Your task to perform on an android device: Open Wikipedia Image 0: 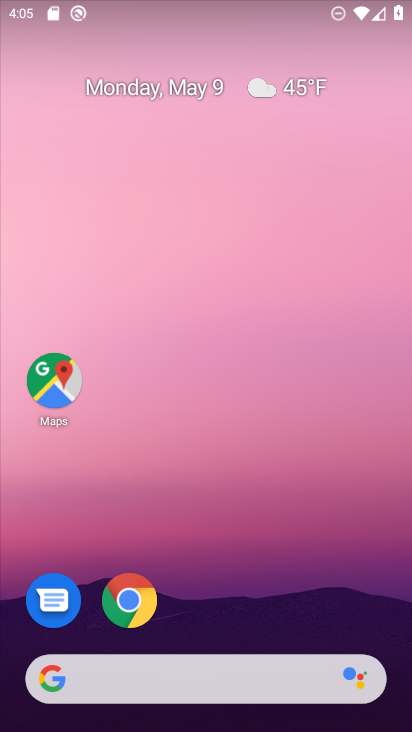
Step 0: drag from (252, 597) to (279, 2)
Your task to perform on an android device: Open Wikipedia Image 1: 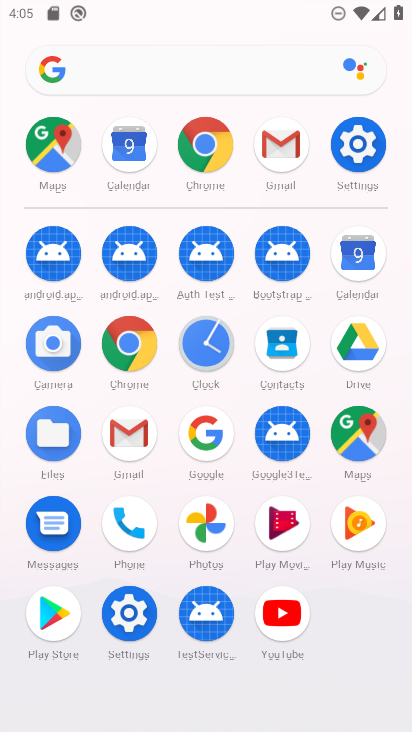
Step 1: drag from (6, 614) to (29, 239)
Your task to perform on an android device: Open Wikipedia Image 2: 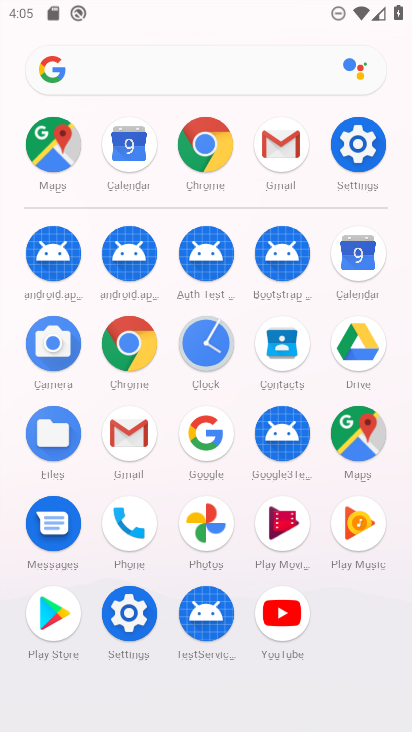
Step 2: click (205, 140)
Your task to perform on an android device: Open Wikipedia Image 3: 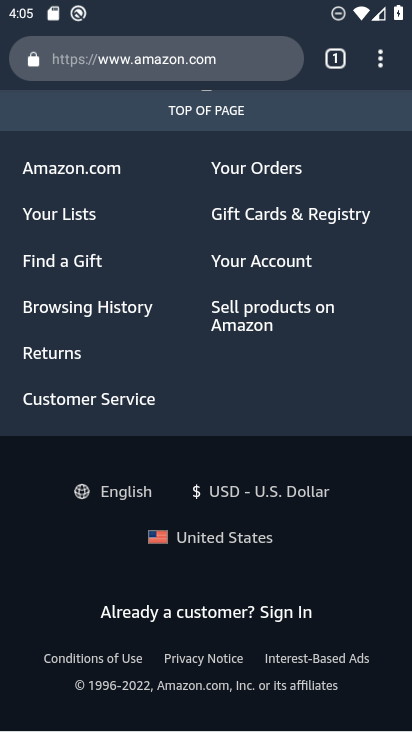
Step 3: click (166, 65)
Your task to perform on an android device: Open Wikipedia Image 4: 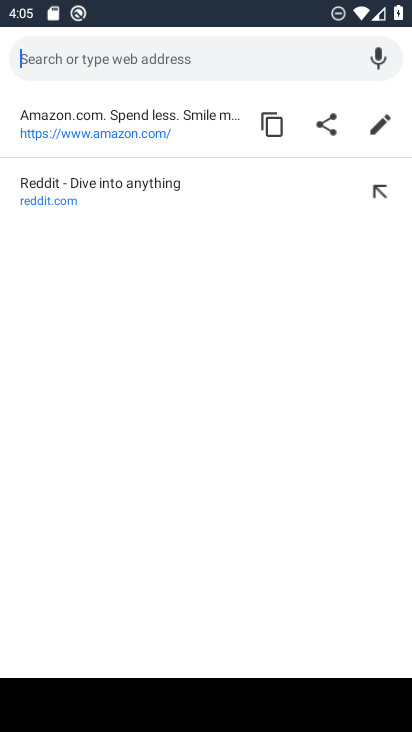
Step 4: type "Open Wikipedia"
Your task to perform on an android device: Open Wikipedia Image 5: 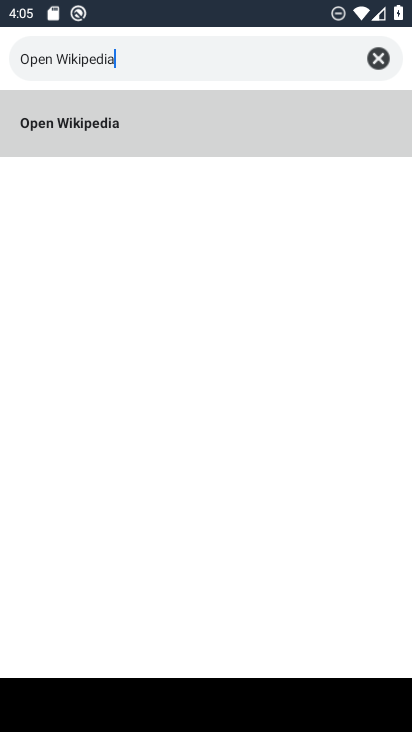
Step 5: type ""
Your task to perform on an android device: Open Wikipedia Image 6: 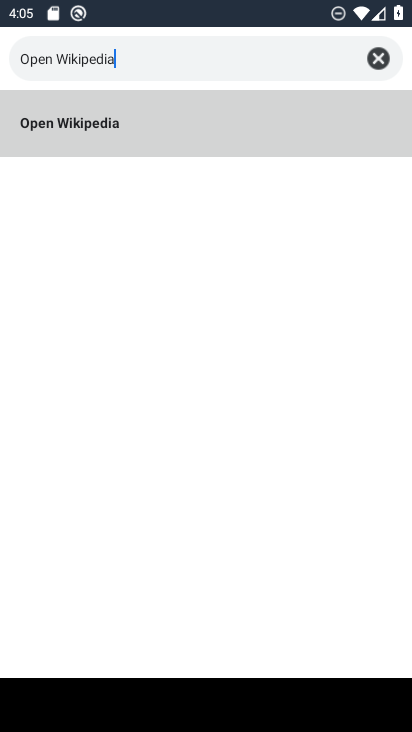
Step 6: click (137, 116)
Your task to perform on an android device: Open Wikipedia Image 7: 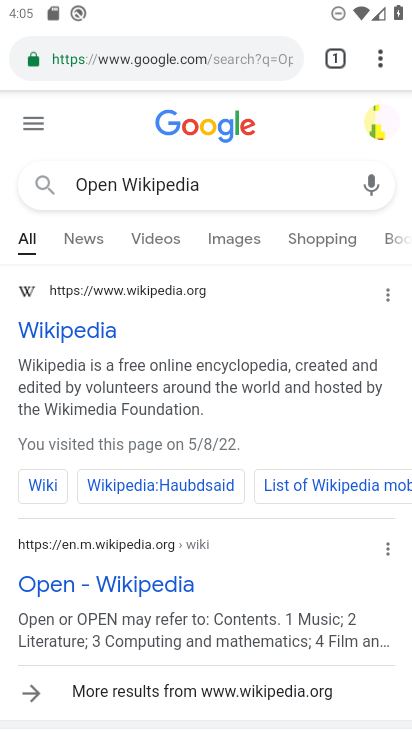
Step 7: click (64, 334)
Your task to perform on an android device: Open Wikipedia Image 8: 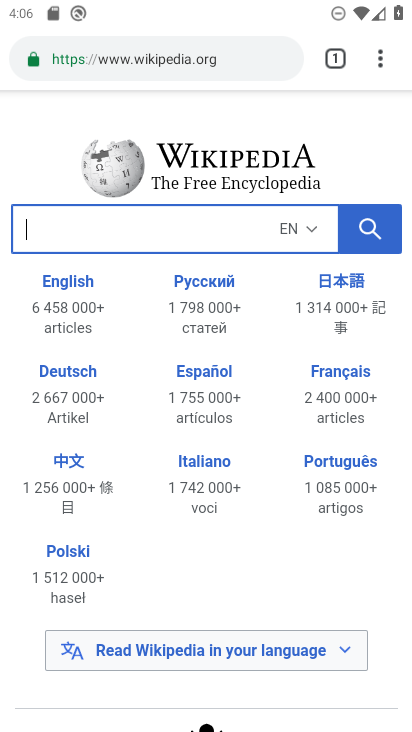
Step 8: task complete